Your task to perform on an android device: Show me productivity apps on the Play Store Image 0: 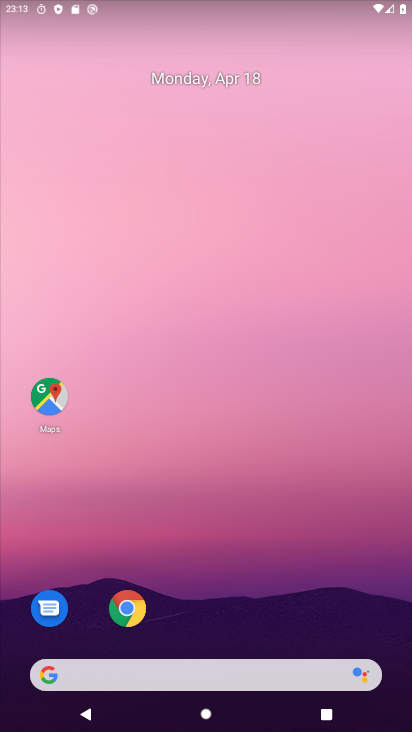
Step 0: drag from (236, 594) to (230, 147)
Your task to perform on an android device: Show me productivity apps on the Play Store Image 1: 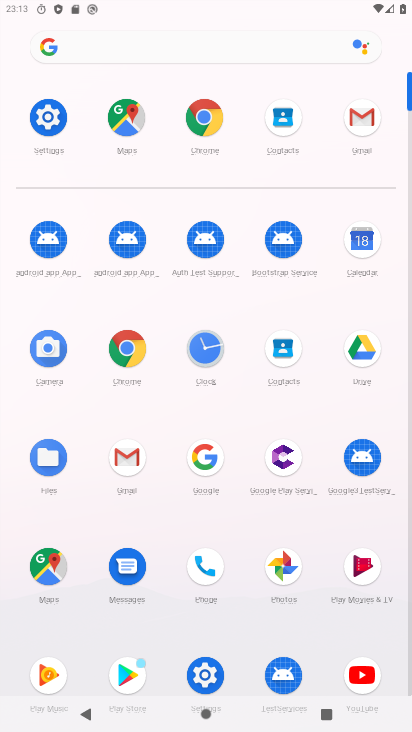
Step 1: click (124, 677)
Your task to perform on an android device: Show me productivity apps on the Play Store Image 2: 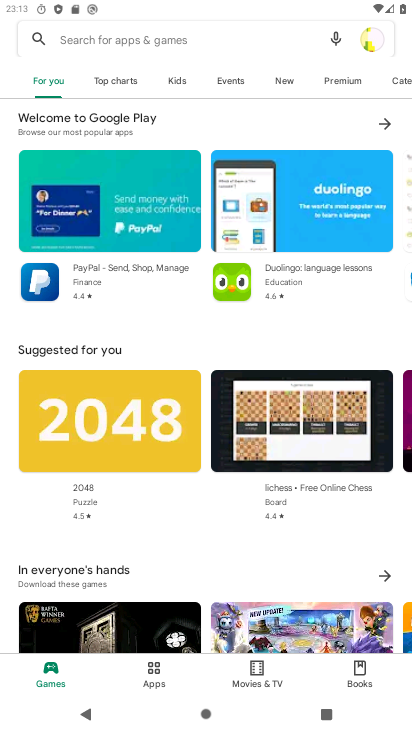
Step 2: click (158, 671)
Your task to perform on an android device: Show me productivity apps on the Play Store Image 3: 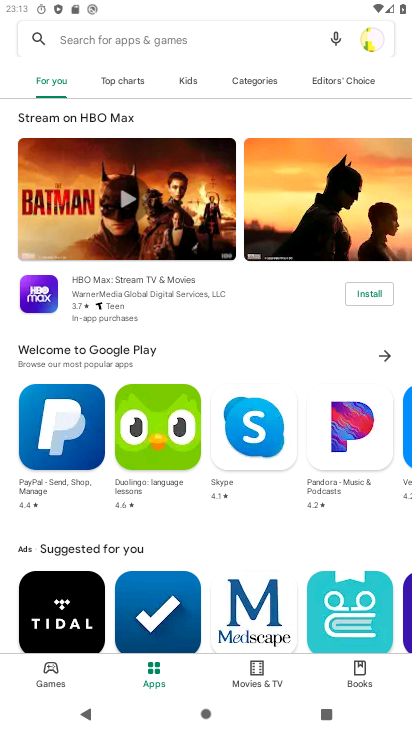
Step 3: click (124, 84)
Your task to perform on an android device: Show me productivity apps on the Play Store Image 4: 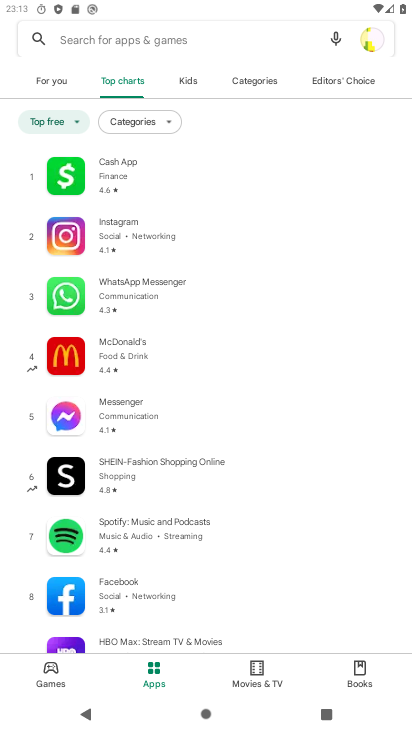
Step 4: task complete